Your task to perform on an android device: Open Google Chrome and click the shortcut for Amazon.com Image 0: 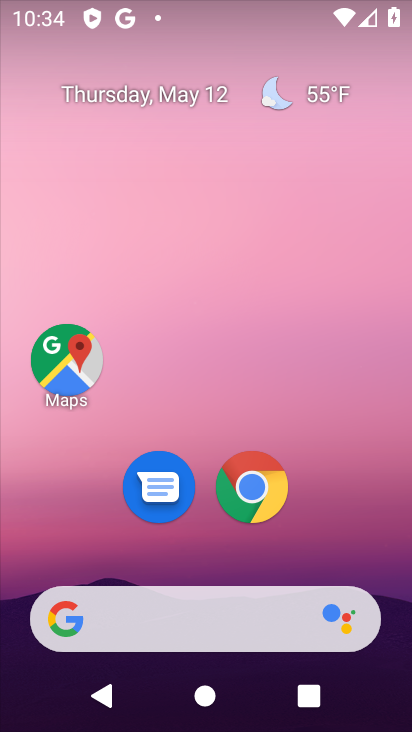
Step 0: click (251, 488)
Your task to perform on an android device: Open Google Chrome and click the shortcut for Amazon.com Image 1: 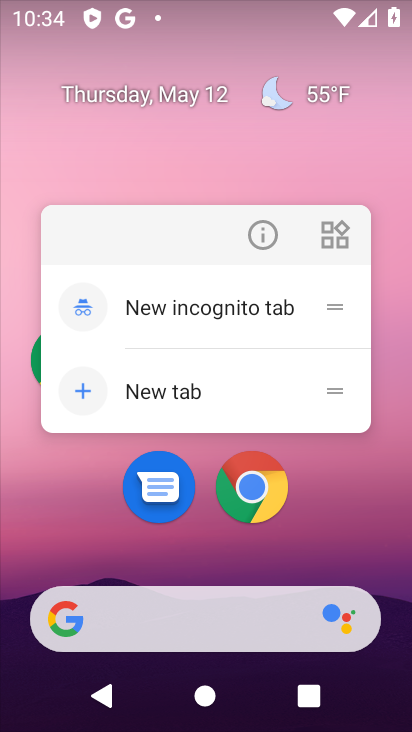
Step 1: click (255, 503)
Your task to perform on an android device: Open Google Chrome and click the shortcut for Amazon.com Image 2: 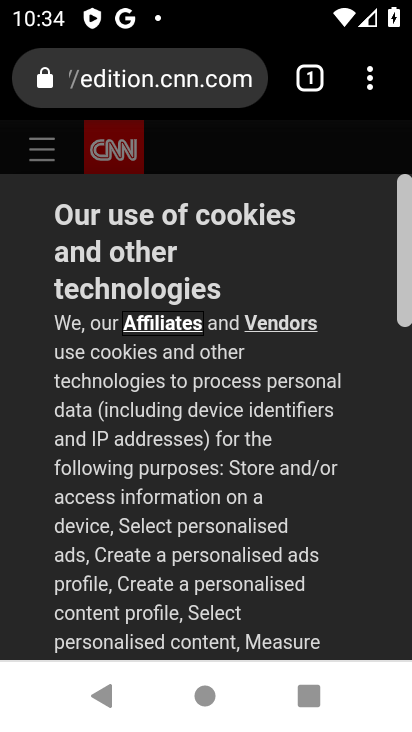
Step 2: click (375, 81)
Your task to perform on an android device: Open Google Chrome and click the shortcut for Amazon.com Image 3: 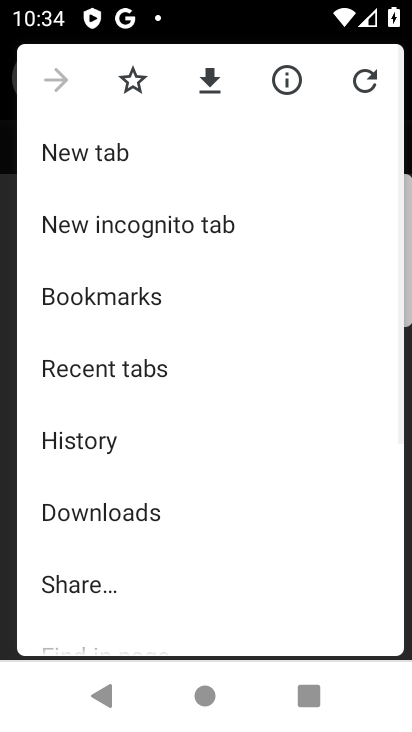
Step 3: click (85, 162)
Your task to perform on an android device: Open Google Chrome and click the shortcut for Amazon.com Image 4: 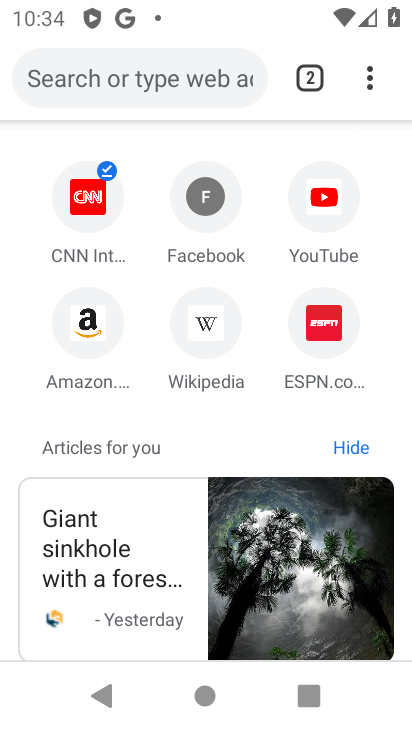
Step 4: click (93, 324)
Your task to perform on an android device: Open Google Chrome and click the shortcut for Amazon.com Image 5: 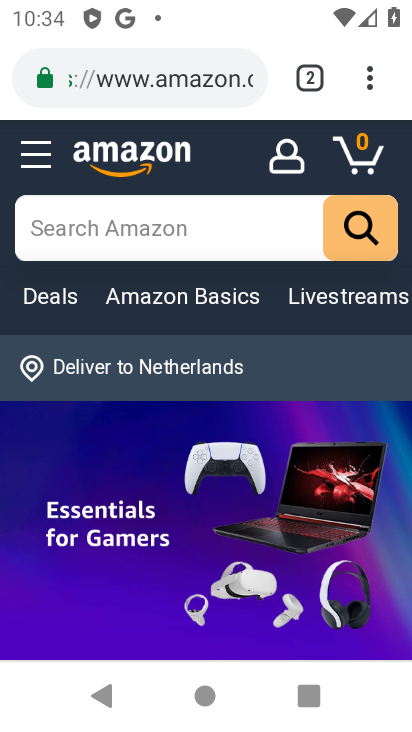
Step 5: task complete